Your task to perform on an android device: Open Amazon Image 0: 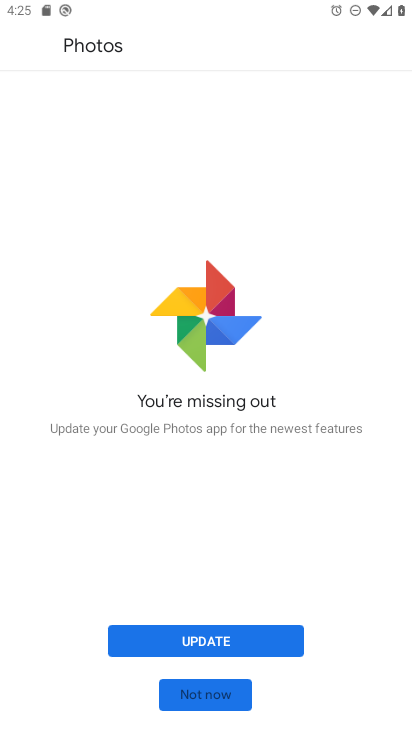
Step 0: press home button
Your task to perform on an android device: Open Amazon Image 1: 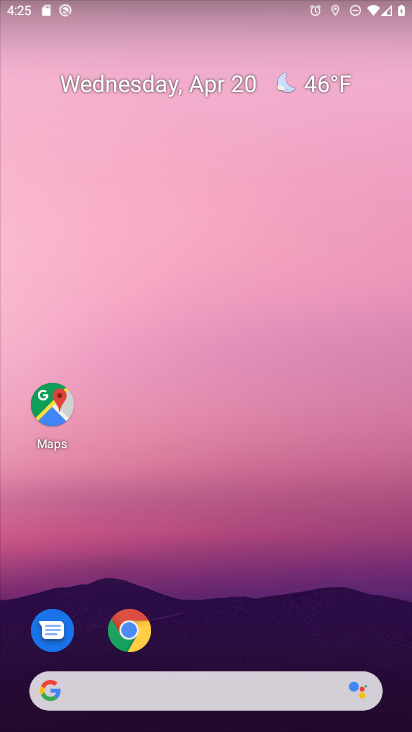
Step 1: drag from (270, 621) to (273, 12)
Your task to perform on an android device: Open Amazon Image 2: 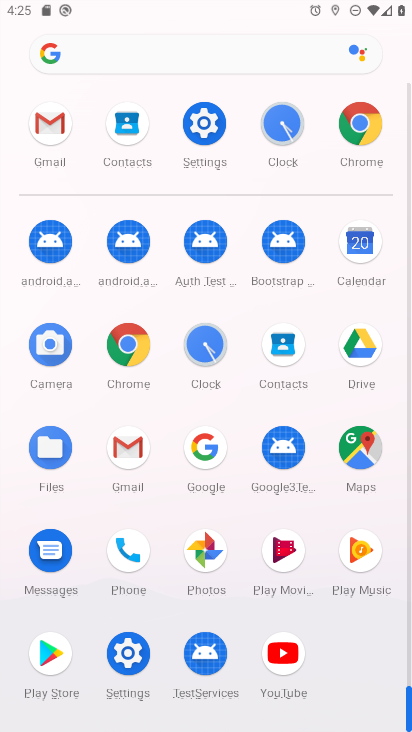
Step 2: click (126, 353)
Your task to perform on an android device: Open Amazon Image 3: 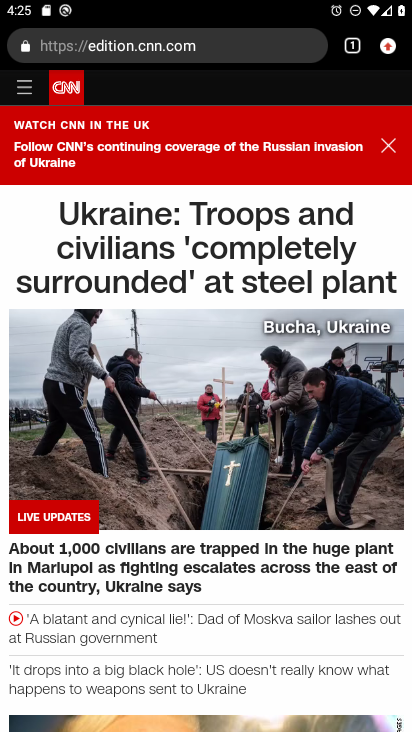
Step 3: click (222, 52)
Your task to perform on an android device: Open Amazon Image 4: 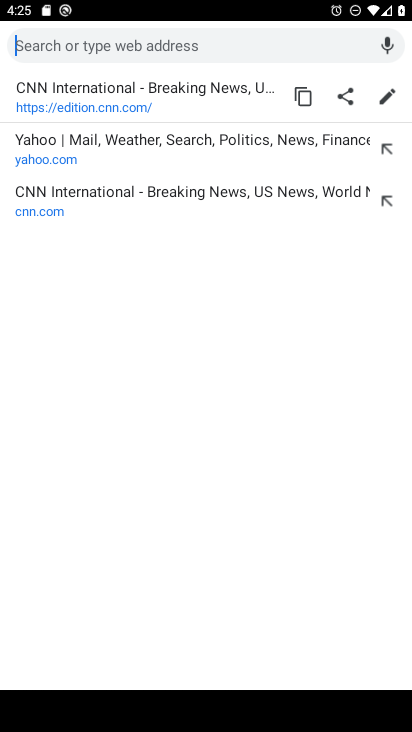
Step 4: type "amazon"
Your task to perform on an android device: Open Amazon Image 5: 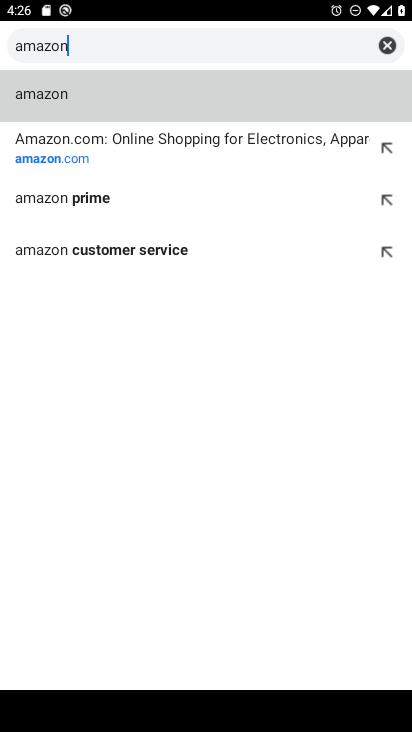
Step 5: click (104, 168)
Your task to perform on an android device: Open Amazon Image 6: 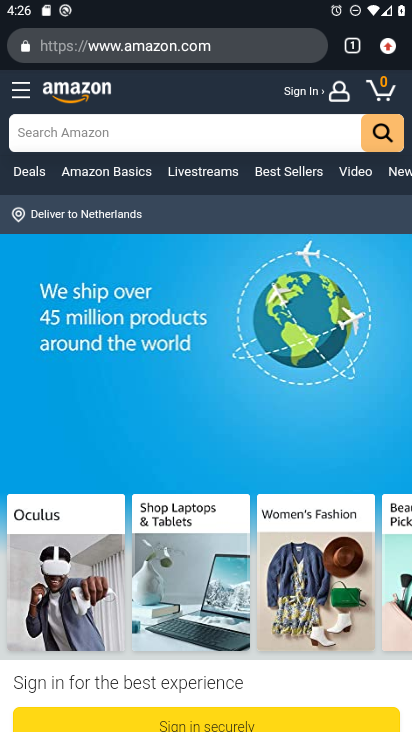
Step 6: task complete